Your task to perform on an android device: stop showing notifications on the lock screen Image 0: 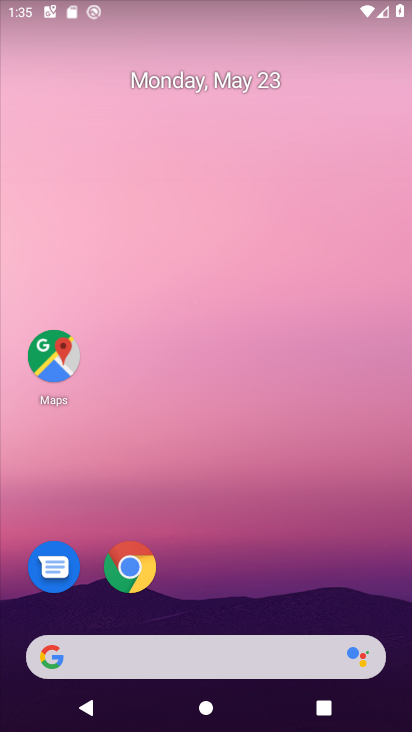
Step 0: drag from (201, 600) to (266, 287)
Your task to perform on an android device: stop showing notifications on the lock screen Image 1: 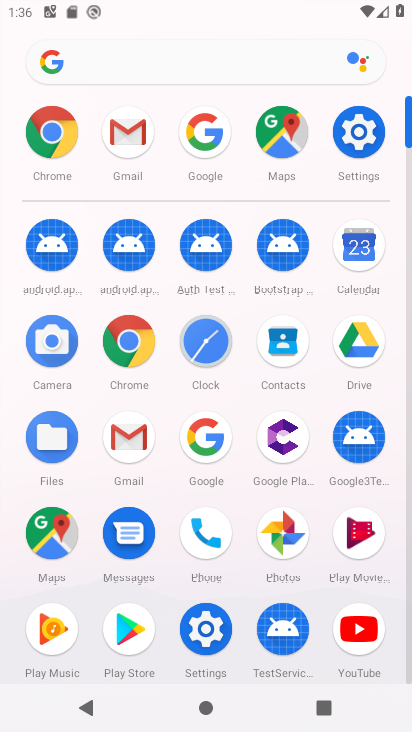
Step 1: drag from (182, 546) to (217, 223)
Your task to perform on an android device: stop showing notifications on the lock screen Image 2: 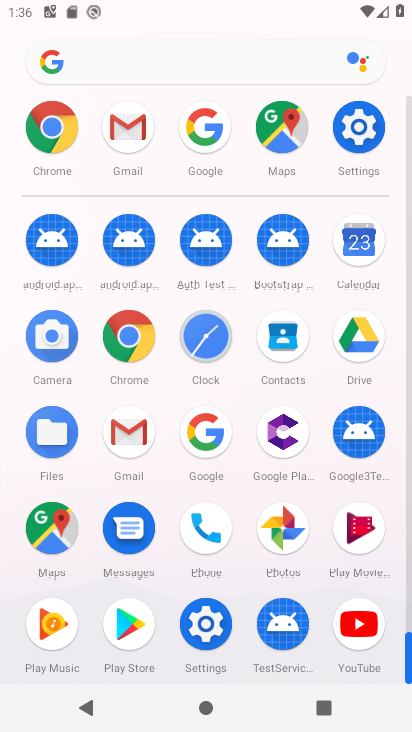
Step 2: click (207, 610)
Your task to perform on an android device: stop showing notifications on the lock screen Image 3: 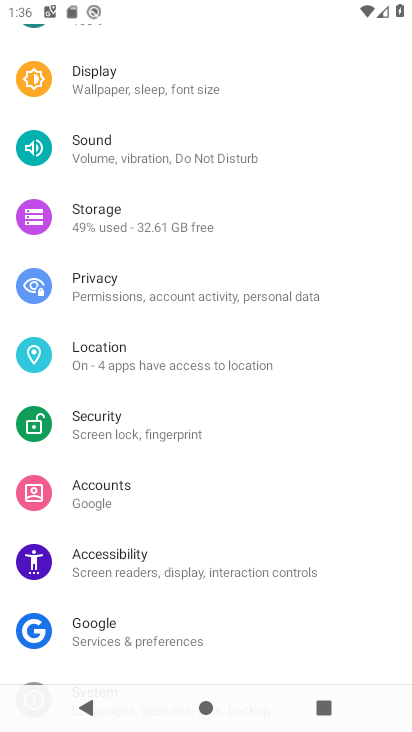
Step 3: drag from (197, 261) to (202, 527)
Your task to perform on an android device: stop showing notifications on the lock screen Image 4: 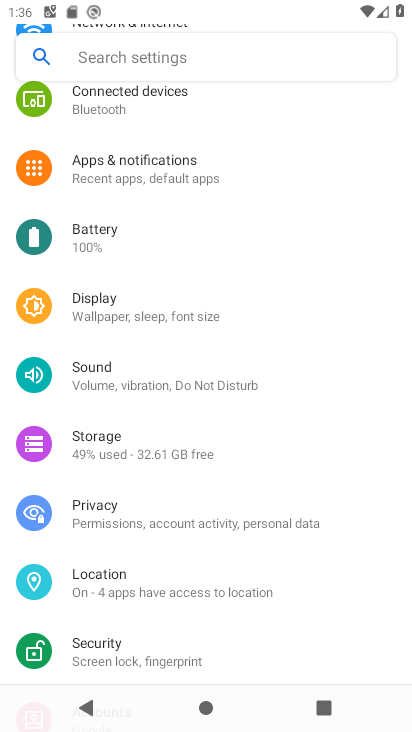
Step 4: click (182, 174)
Your task to perform on an android device: stop showing notifications on the lock screen Image 5: 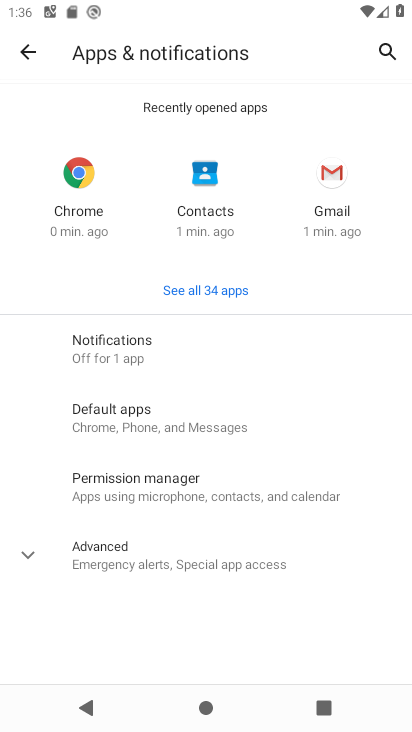
Step 5: drag from (206, 518) to (221, 379)
Your task to perform on an android device: stop showing notifications on the lock screen Image 6: 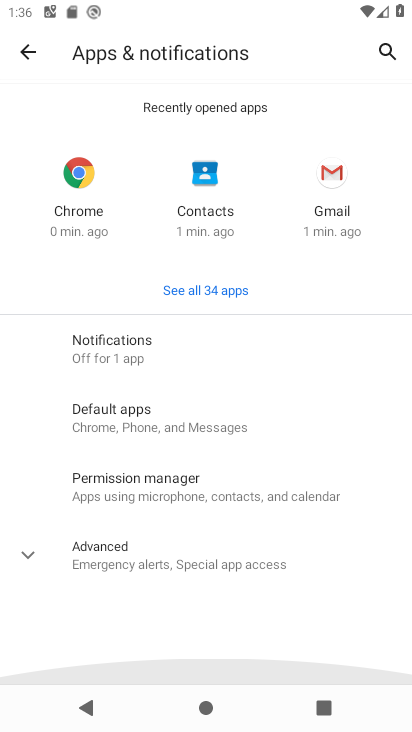
Step 6: click (215, 363)
Your task to perform on an android device: stop showing notifications on the lock screen Image 7: 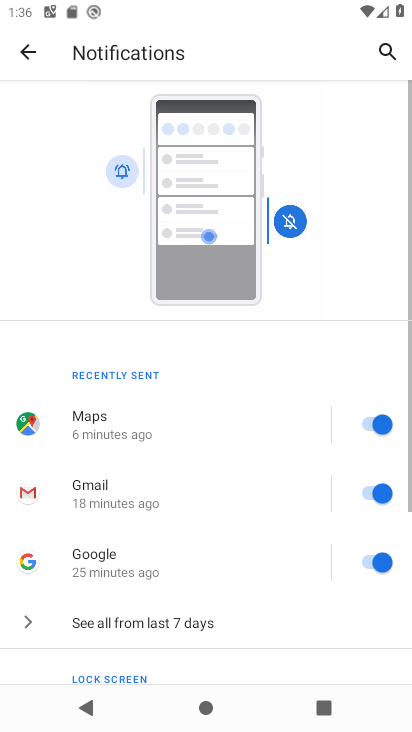
Step 7: drag from (198, 538) to (204, 277)
Your task to perform on an android device: stop showing notifications on the lock screen Image 8: 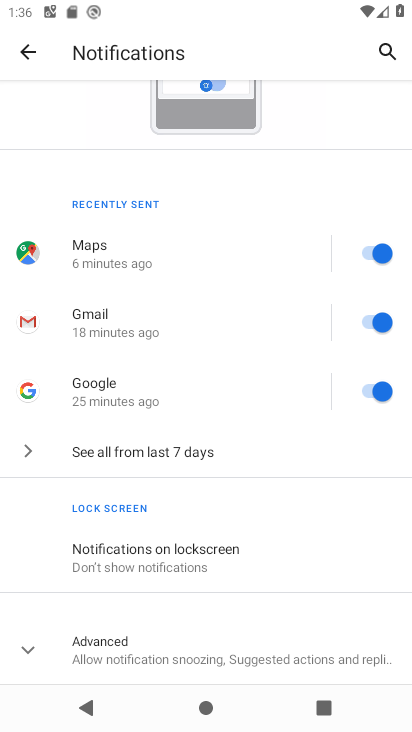
Step 8: click (150, 558)
Your task to perform on an android device: stop showing notifications on the lock screen Image 9: 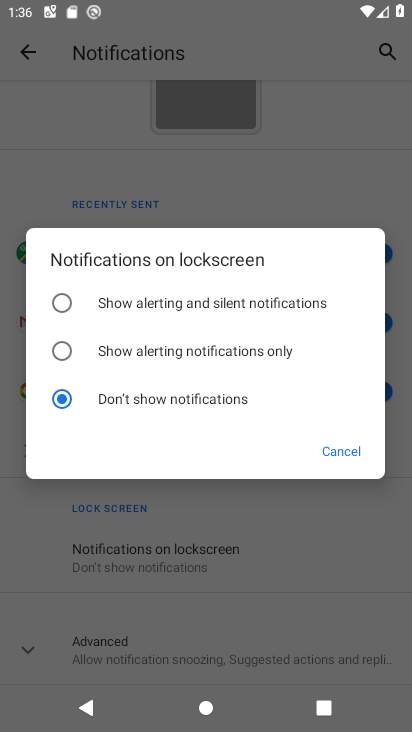
Step 9: click (195, 409)
Your task to perform on an android device: stop showing notifications on the lock screen Image 10: 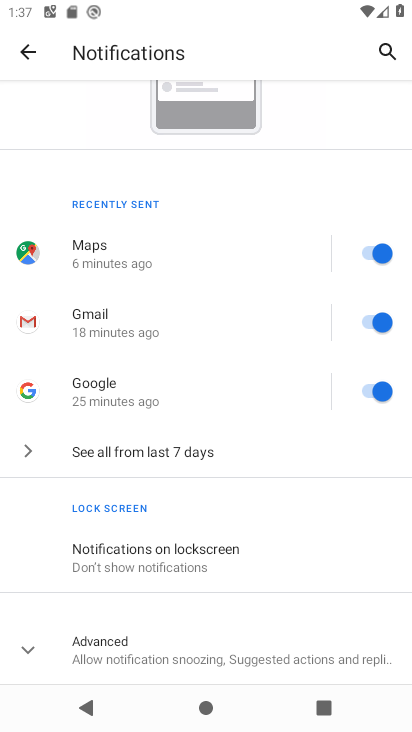
Step 10: task complete